Your task to perform on an android device: add a contact Image 0: 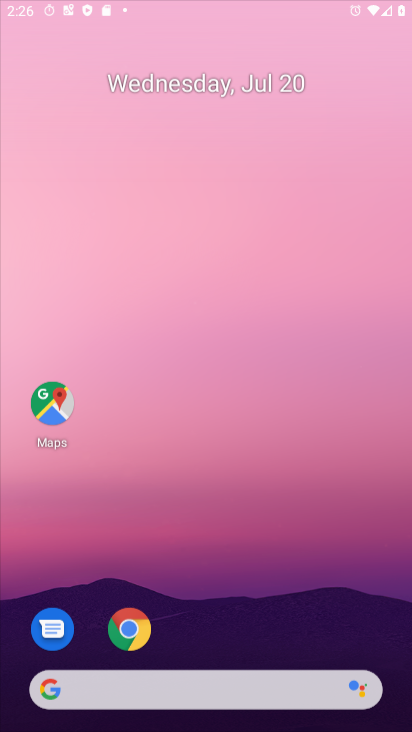
Step 0: press home button
Your task to perform on an android device: add a contact Image 1: 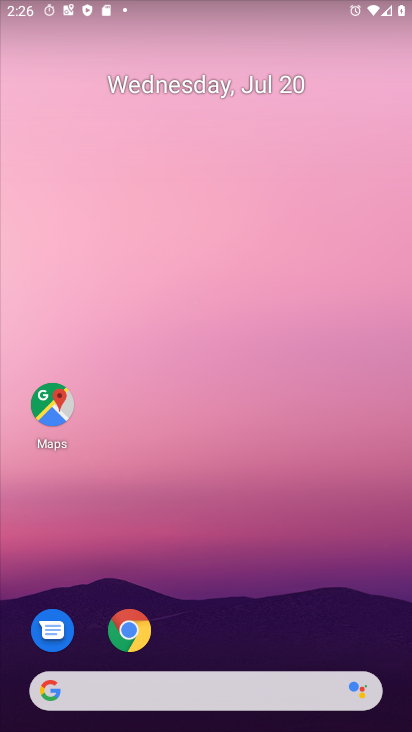
Step 1: drag from (151, 688) to (337, 152)
Your task to perform on an android device: add a contact Image 2: 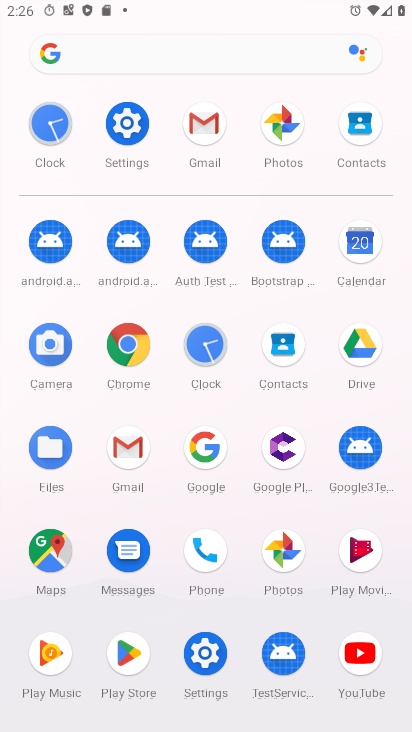
Step 2: click (287, 345)
Your task to perform on an android device: add a contact Image 3: 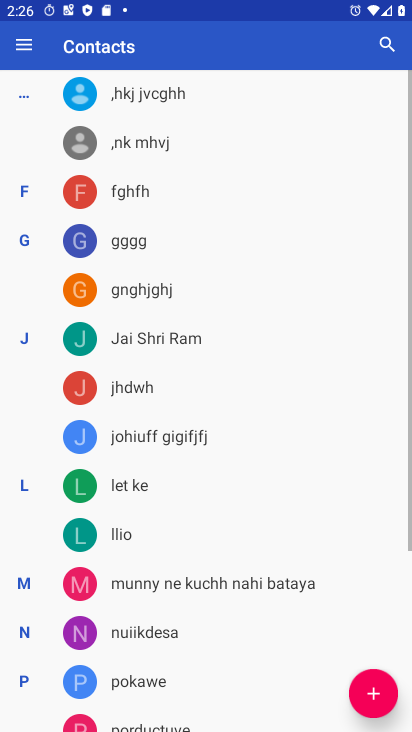
Step 3: click (374, 693)
Your task to perform on an android device: add a contact Image 4: 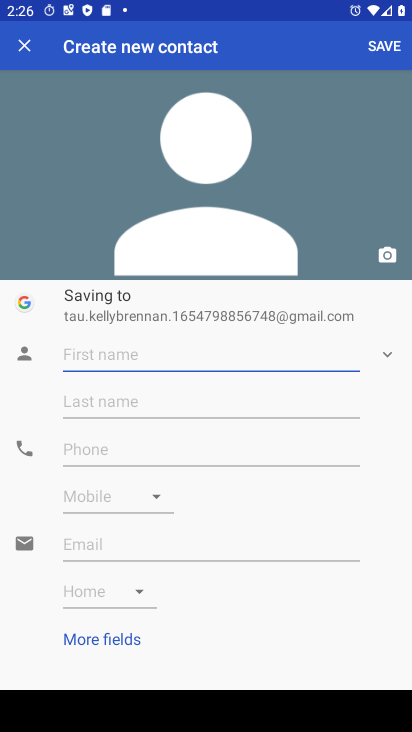
Step 4: click (149, 344)
Your task to perform on an android device: add a contact Image 5: 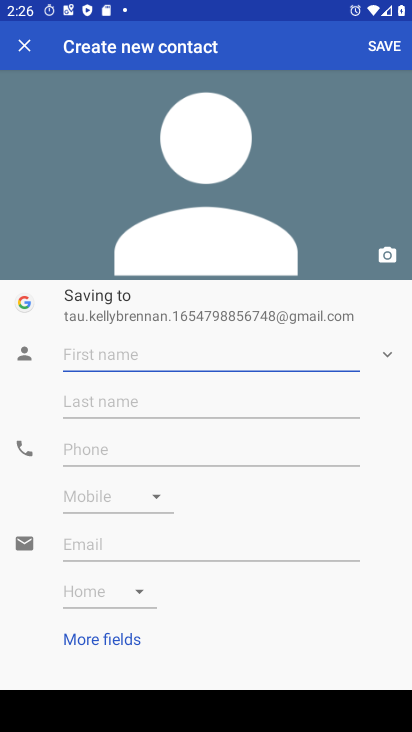
Step 5: type "qoejtyfjfjg"
Your task to perform on an android device: add a contact Image 6: 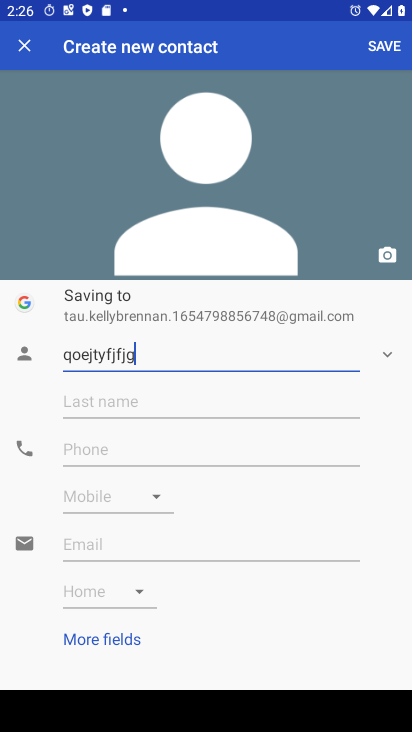
Step 6: click (111, 445)
Your task to perform on an android device: add a contact Image 7: 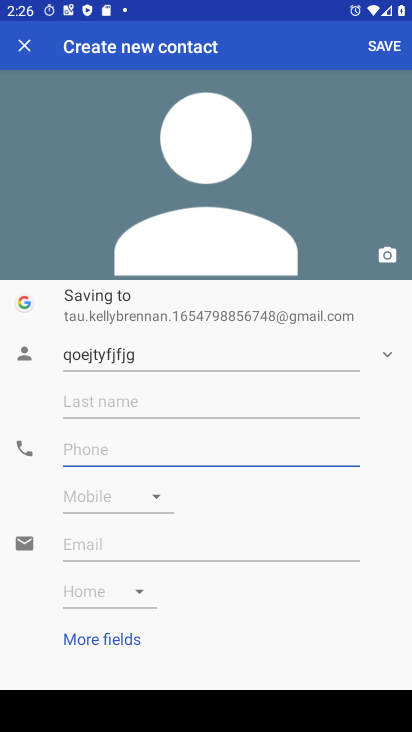
Step 7: type "1937768877"
Your task to perform on an android device: add a contact Image 8: 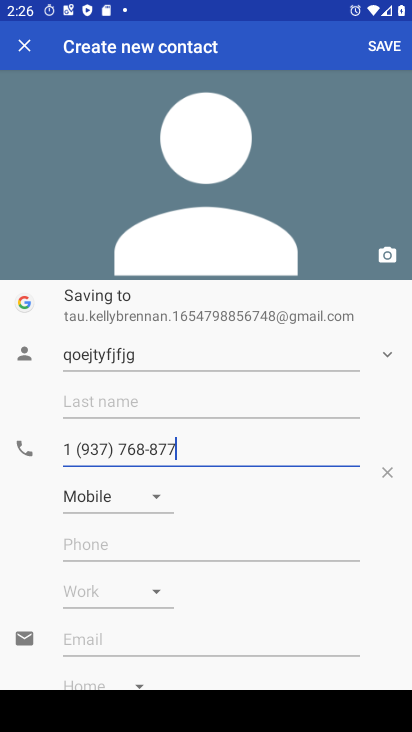
Step 8: click (382, 42)
Your task to perform on an android device: add a contact Image 9: 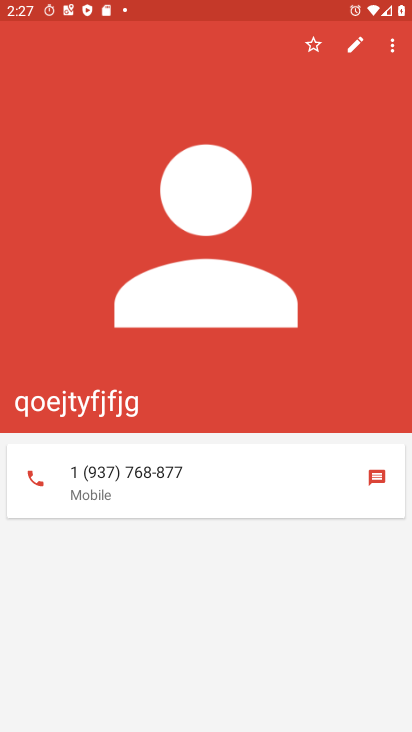
Step 9: task complete